Your task to perform on an android device: change your default location settings in chrome Image 0: 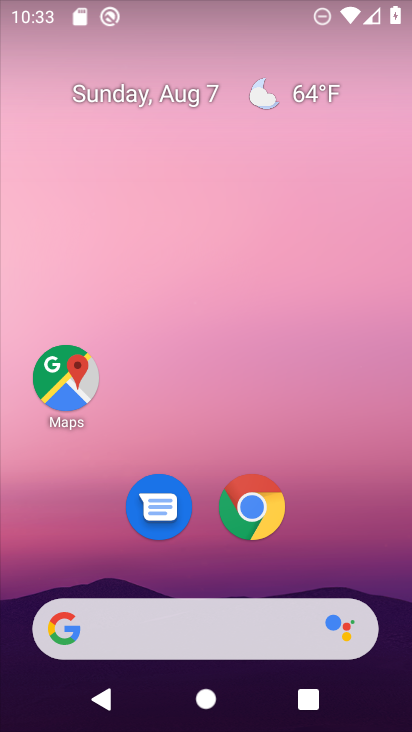
Step 0: drag from (368, 539) to (231, 53)
Your task to perform on an android device: change your default location settings in chrome Image 1: 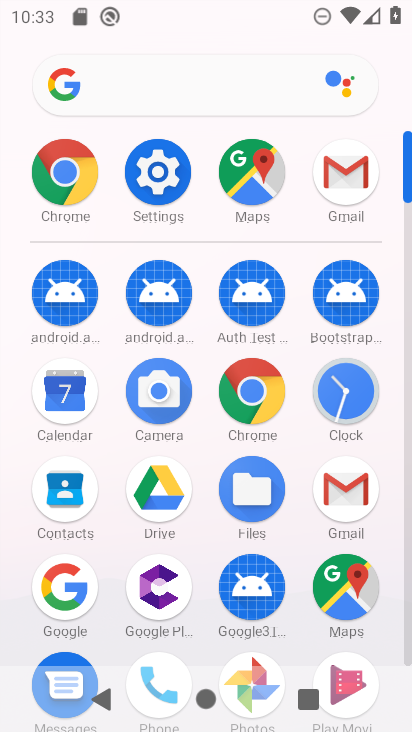
Step 1: click (250, 391)
Your task to perform on an android device: change your default location settings in chrome Image 2: 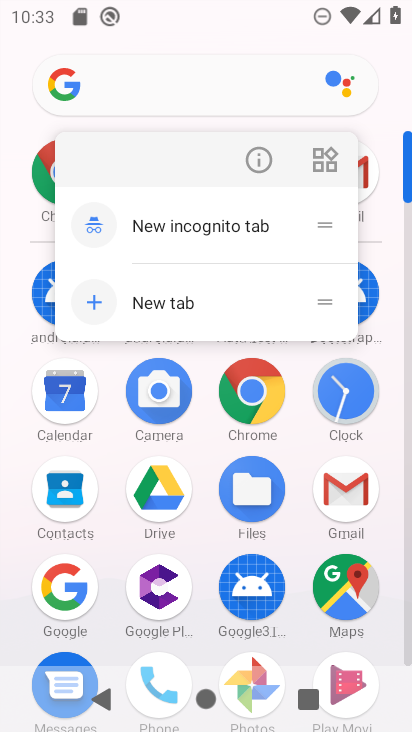
Step 2: click (246, 391)
Your task to perform on an android device: change your default location settings in chrome Image 3: 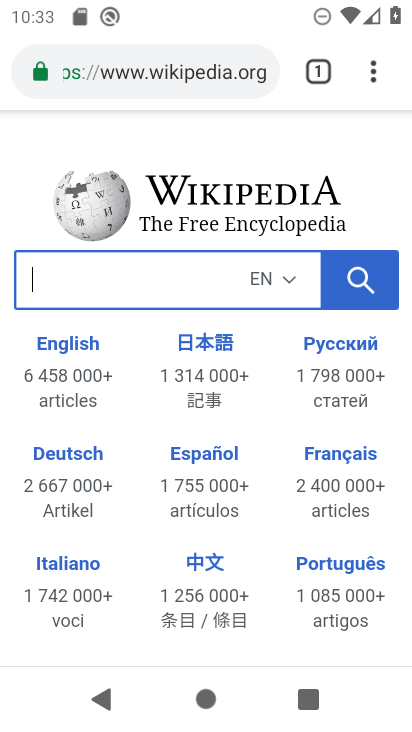
Step 3: drag from (384, 59) to (199, 504)
Your task to perform on an android device: change your default location settings in chrome Image 4: 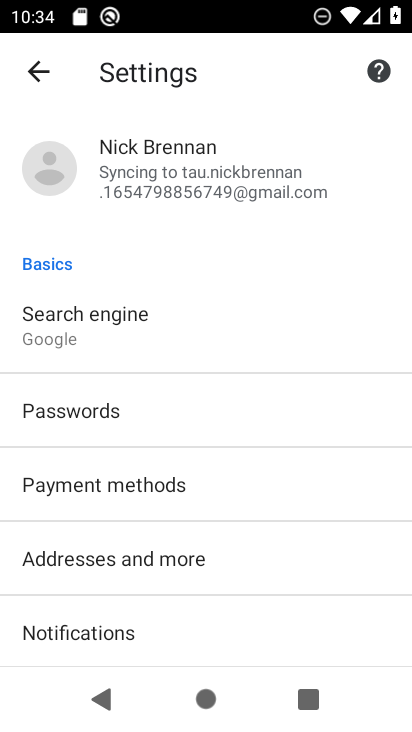
Step 4: drag from (314, 538) to (331, 170)
Your task to perform on an android device: change your default location settings in chrome Image 5: 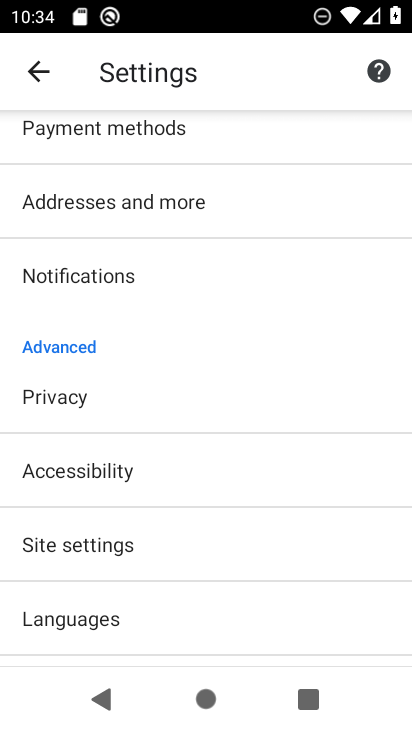
Step 5: drag from (231, 271) to (296, 250)
Your task to perform on an android device: change your default location settings in chrome Image 6: 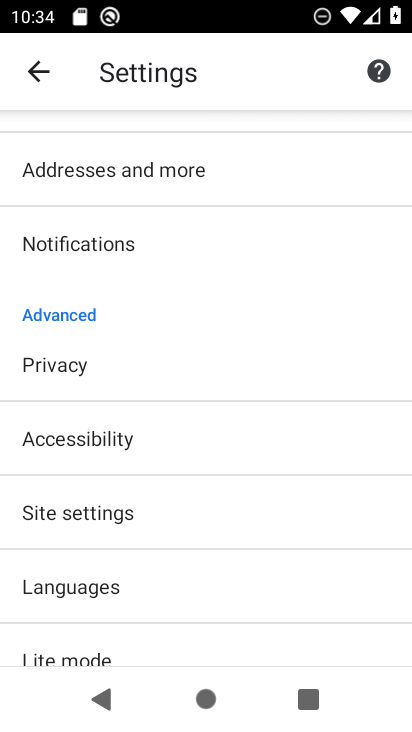
Step 6: click (105, 510)
Your task to perform on an android device: change your default location settings in chrome Image 7: 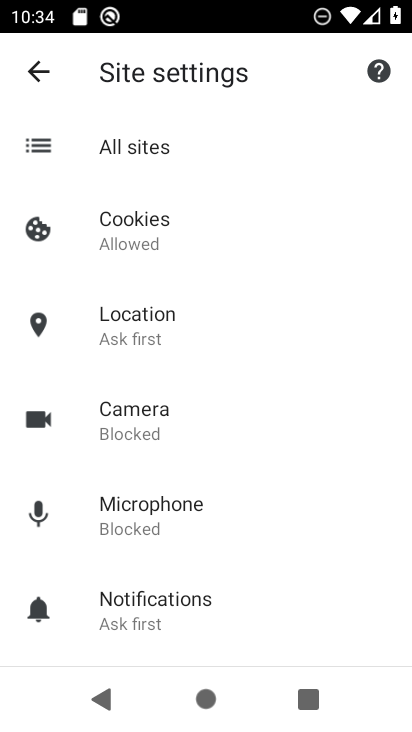
Step 7: click (140, 261)
Your task to perform on an android device: change your default location settings in chrome Image 8: 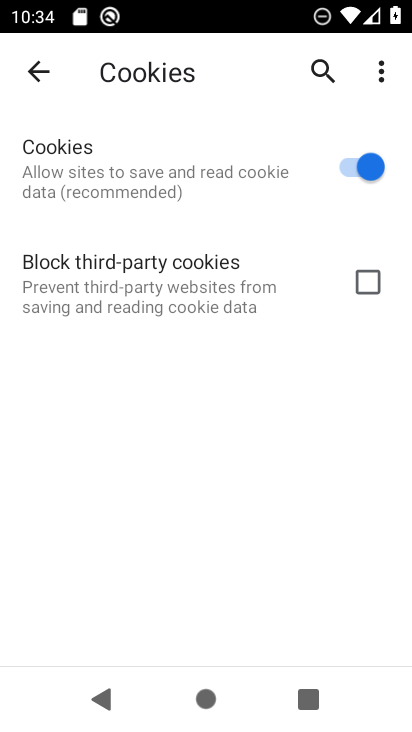
Step 8: click (37, 65)
Your task to perform on an android device: change your default location settings in chrome Image 9: 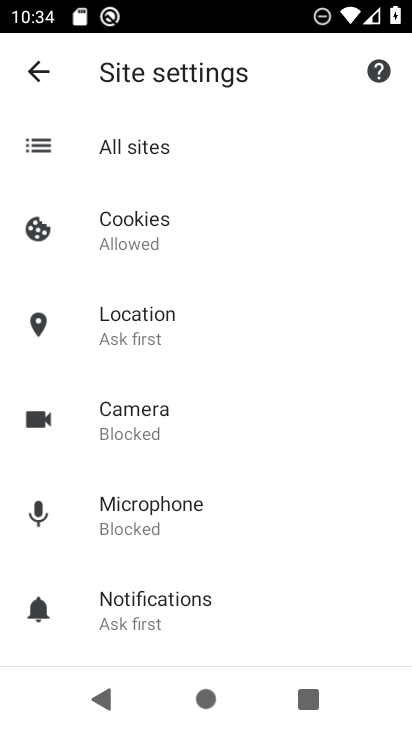
Step 9: click (127, 327)
Your task to perform on an android device: change your default location settings in chrome Image 10: 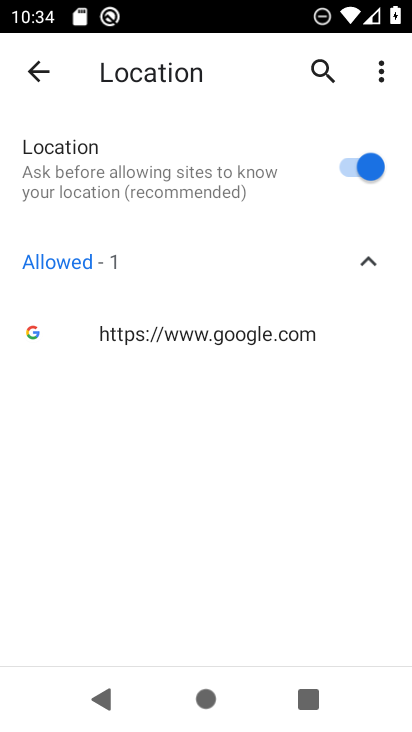
Step 10: click (364, 164)
Your task to perform on an android device: change your default location settings in chrome Image 11: 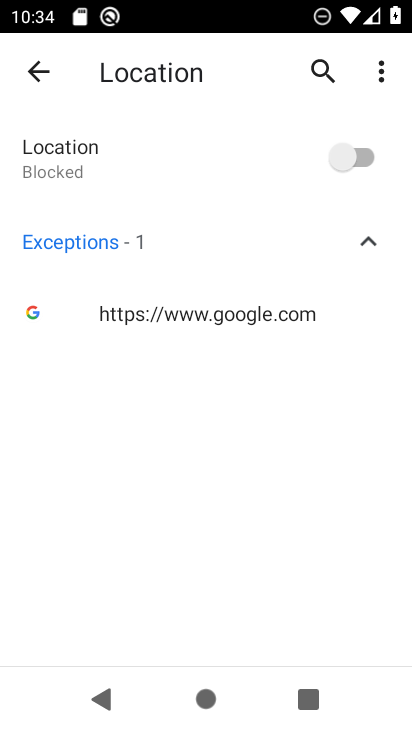
Step 11: task complete